Your task to perform on an android device: Open wifi settings Image 0: 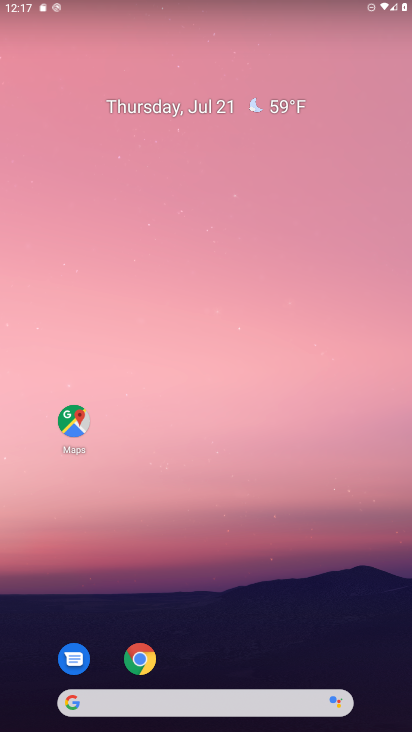
Step 0: press home button
Your task to perform on an android device: Open wifi settings Image 1: 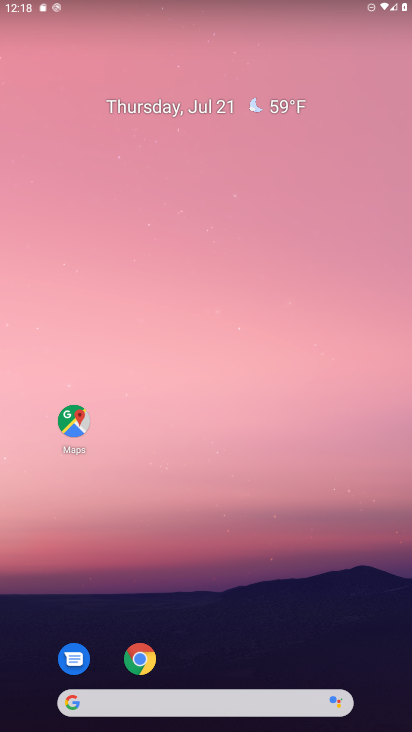
Step 1: drag from (158, 9) to (146, 445)
Your task to perform on an android device: Open wifi settings Image 2: 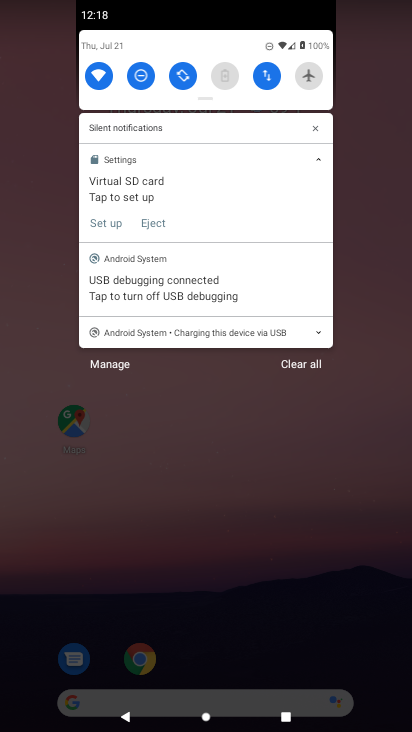
Step 2: click (98, 80)
Your task to perform on an android device: Open wifi settings Image 3: 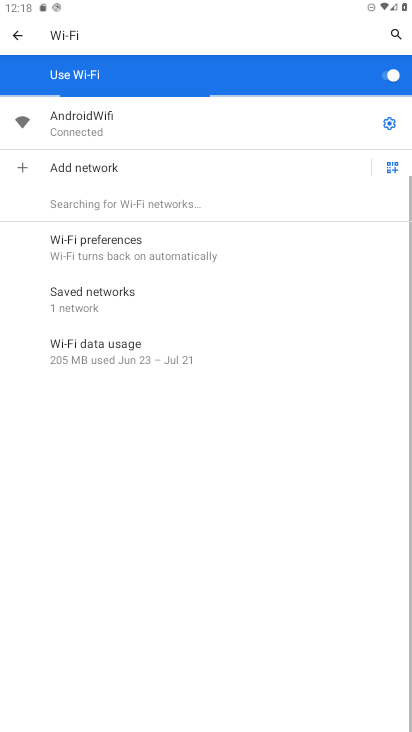
Step 3: click (388, 125)
Your task to perform on an android device: Open wifi settings Image 4: 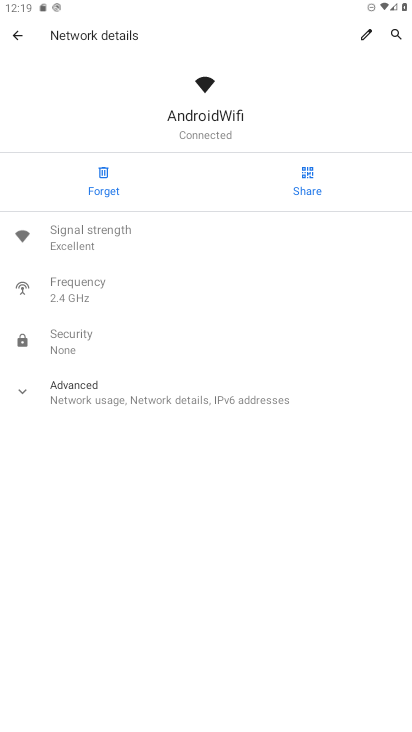
Step 4: task complete